Your task to perform on an android device: Go to privacy settings Image 0: 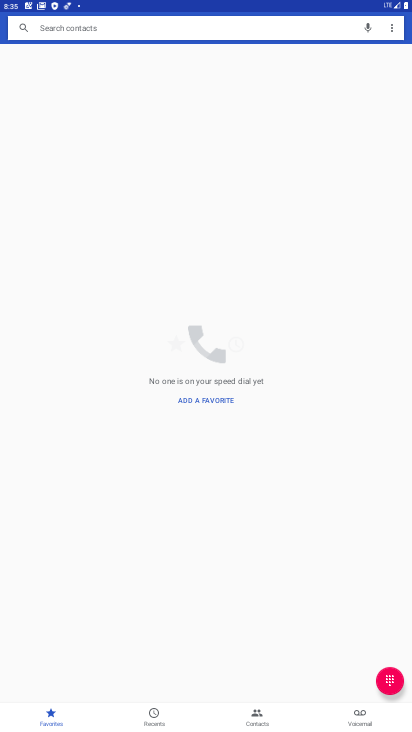
Step 0: press home button
Your task to perform on an android device: Go to privacy settings Image 1: 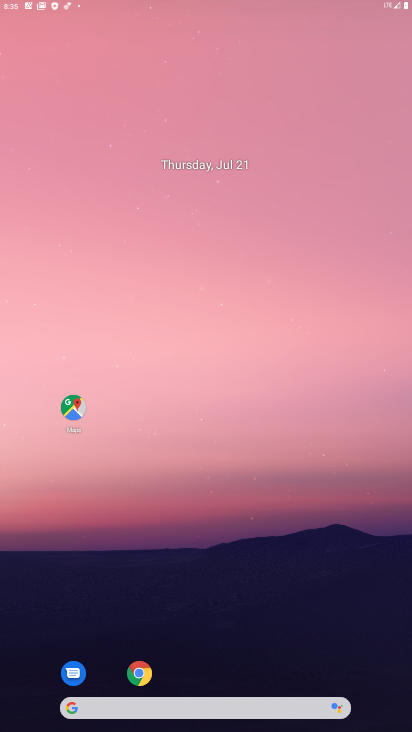
Step 1: drag from (184, 672) to (208, 87)
Your task to perform on an android device: Go to privacy settings Image 2: 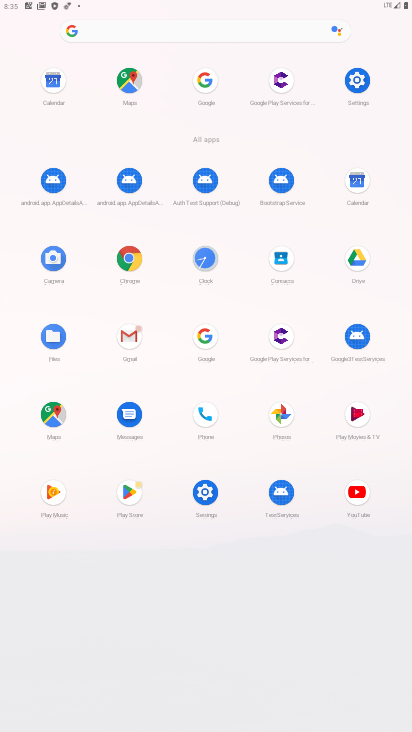
Step 2: click (354, 80)
Your task to perform on an android device: Go to privacy settings Image 3: 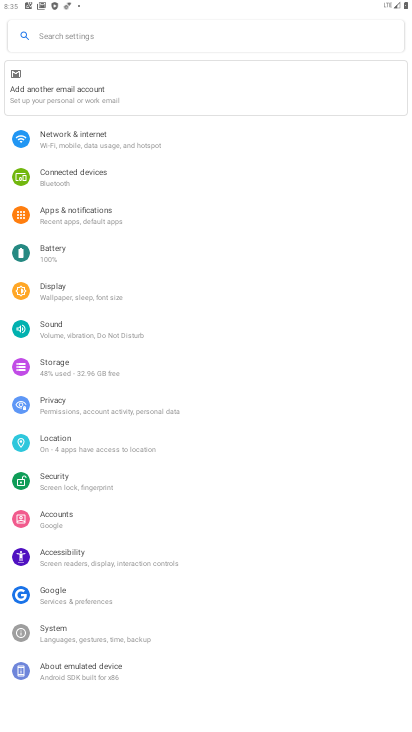
Step 3: click (60, 404)
Your task to perform on an android device: Go to privacy settings Image 4: 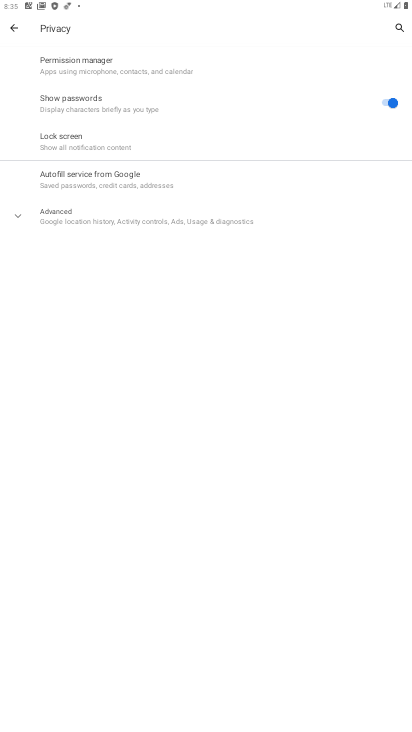
Step 4: task complete